Your task to perform on an android device: manage bookmarks in the chrome app Image 0: 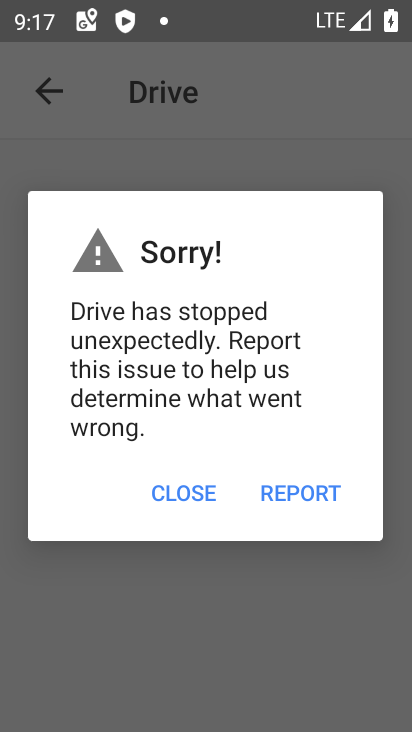
Step 0: press home button
Your task to perform on an android device: manage bookmarks in the chrome app Image 1: 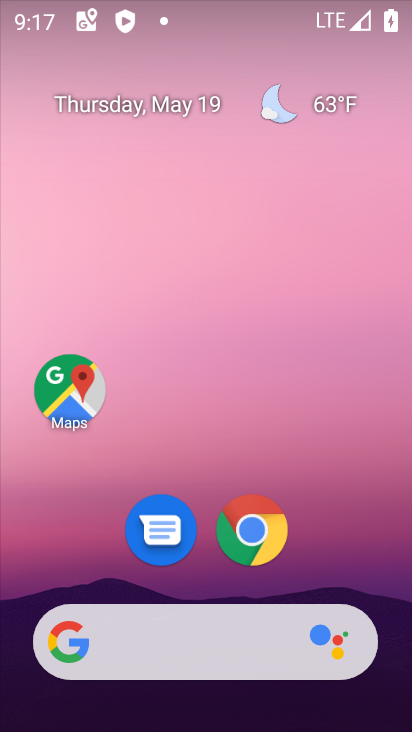
Step 1: click (277, 536)
Your task to perform on an android device: manage bookmarks in the chrome app Image 2: 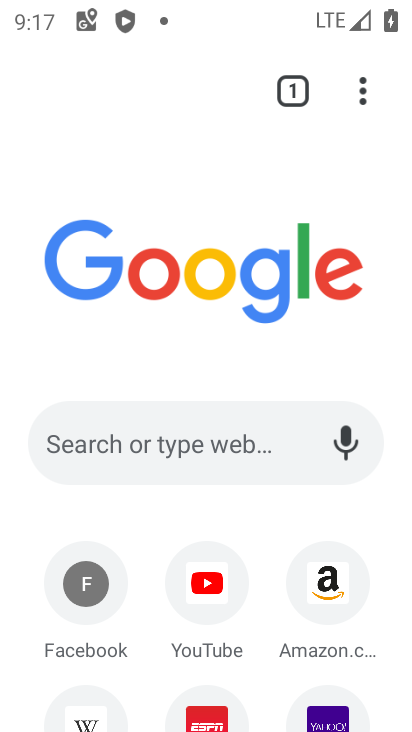
Step 2: click (361, 99)
Your task to perform on an android device: manage bookmarks in the chrome app Image 3: 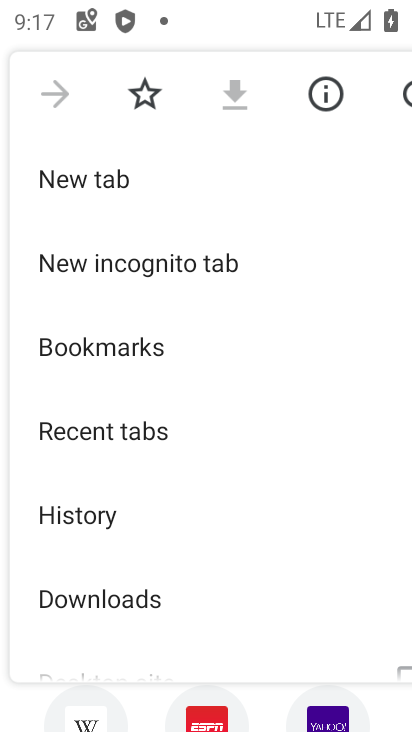
Step 3: click (202, 349)
Your task to perform on an android device: manage bookmarks in the chrome app Image 4: 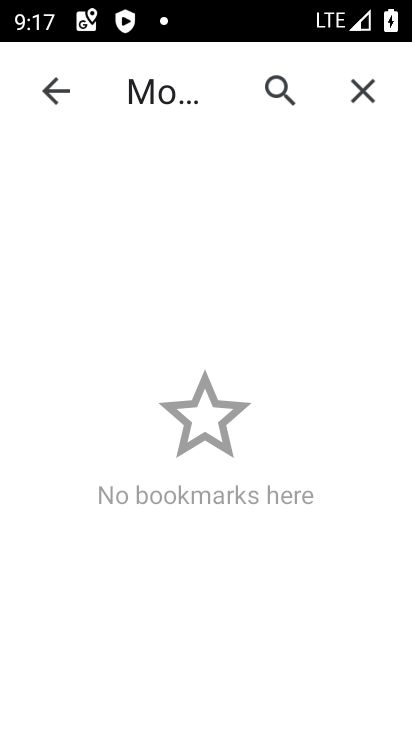
Step 4: task complete